Your task to perform on an android device: toggle pop-ups in chrome Image 0: 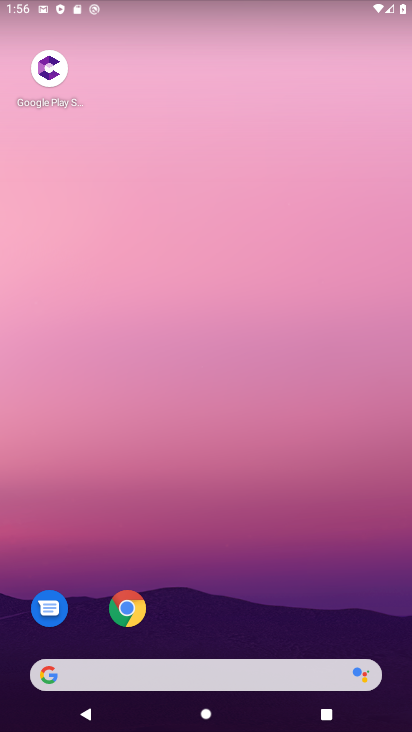
Step 0: click (113, 609)
Your task to perform on an android device: toggle pop-ups in chrome Image 1: 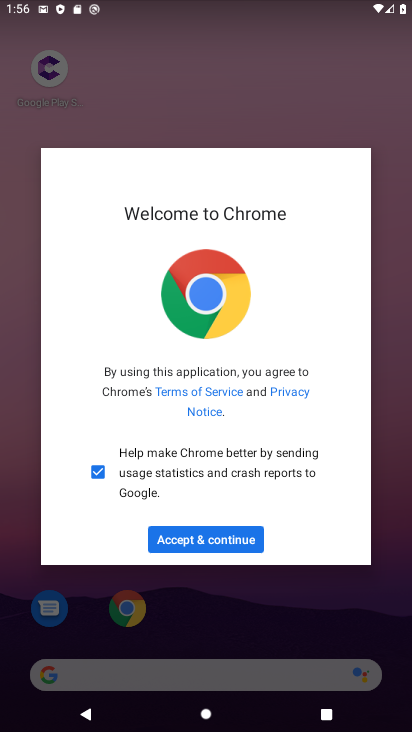
Step 1: click (209, 533)
Your task to perform on an android device: toggle pop-ups in chrome Image 2: 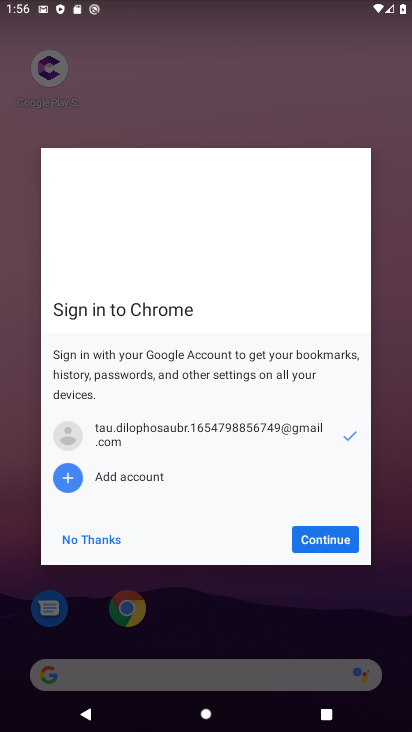
Step 2: click (86, 539)
Your task to perform on an android device: toggle pop-ups in chrome Image 3: 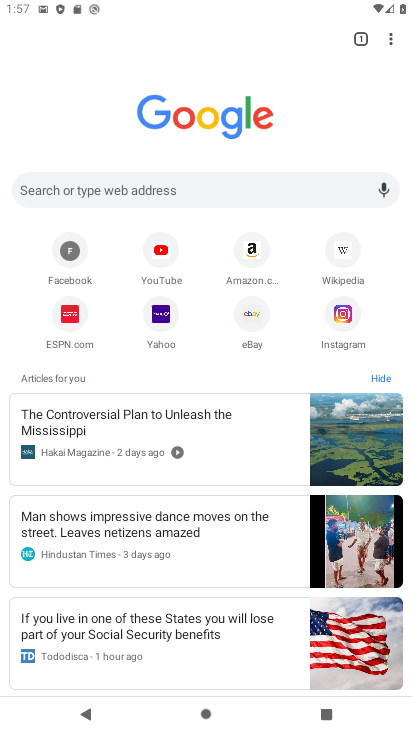
Step 3: click (395, 46)
Your task to perform on an android device: toggle pop-ups in chrome Image 4: 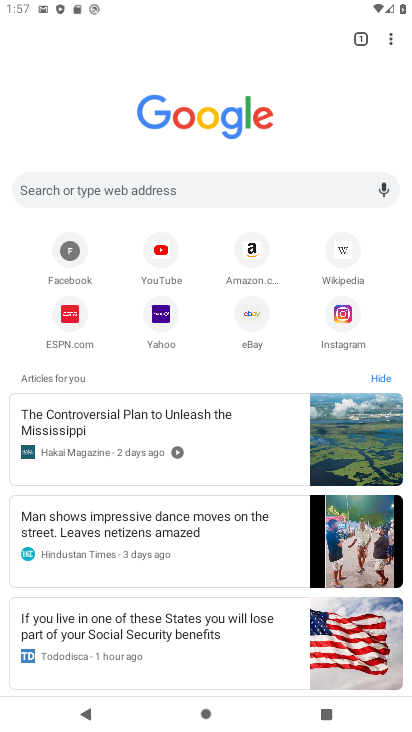
Step 4: click (390, 41)
Your task to perform on an android device: toggle pop-ups in chrome Image 5: 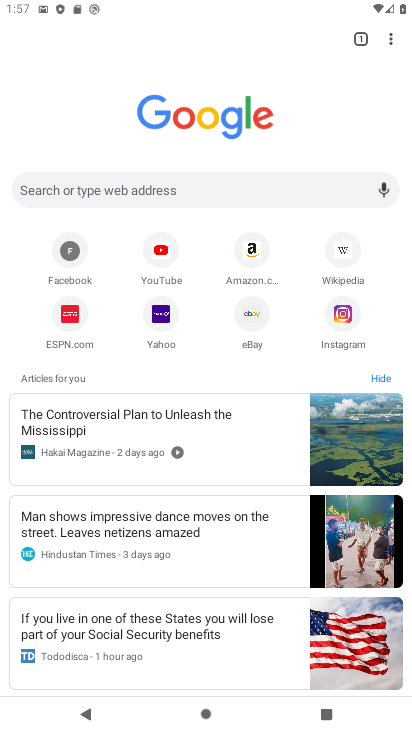
Step 5: click (390, 41)
Your task to perform on an android device: toggle pop-ups in chrome Image 6: 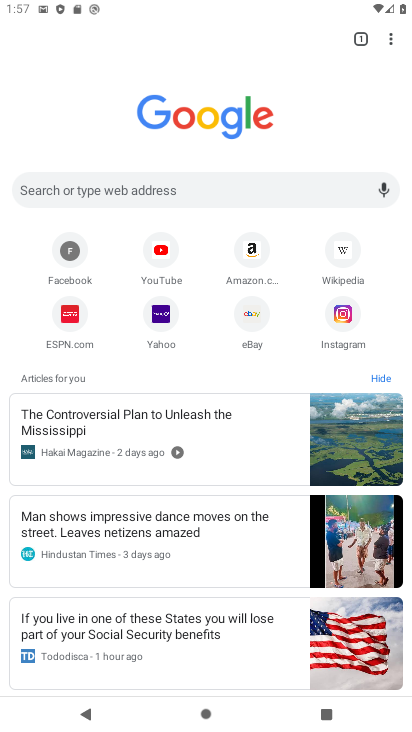
Step 6: click (390, 41)
Your task to perform on an android device: toggle pop-ups in chrome Image 7: 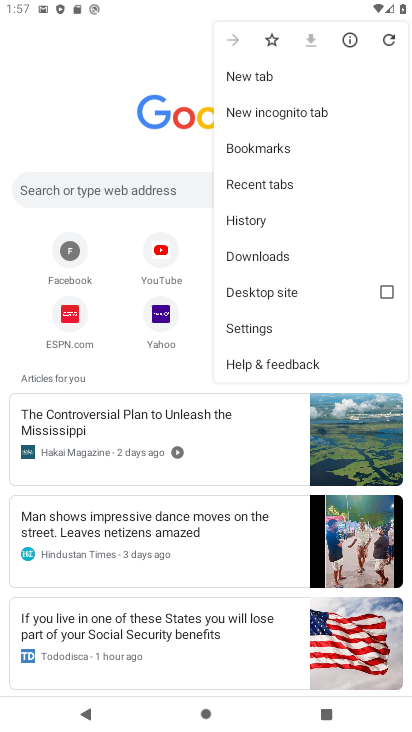
Step 7: click (238, 331)
Your task to perform on an android device: toggle pop-ups in chrome Image 8: 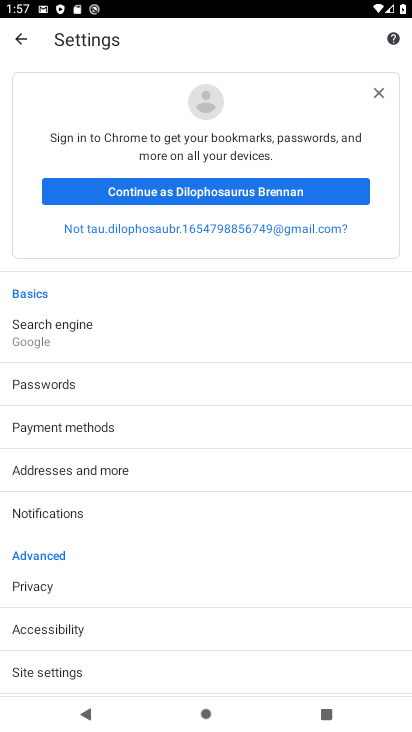
Step 8: click (134, 668)
Your task to perform on an android device: toggle pop-ups in chrome Image 9: 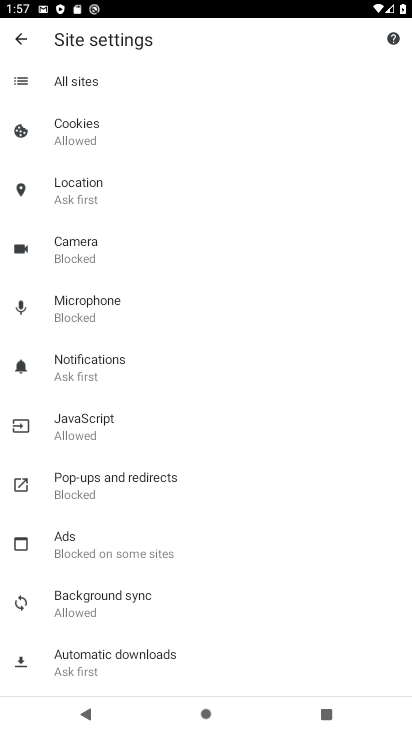
Step 9: click (143, 489)
Your task to perform on an android device: toggle pop-ups in chrome Image 10: 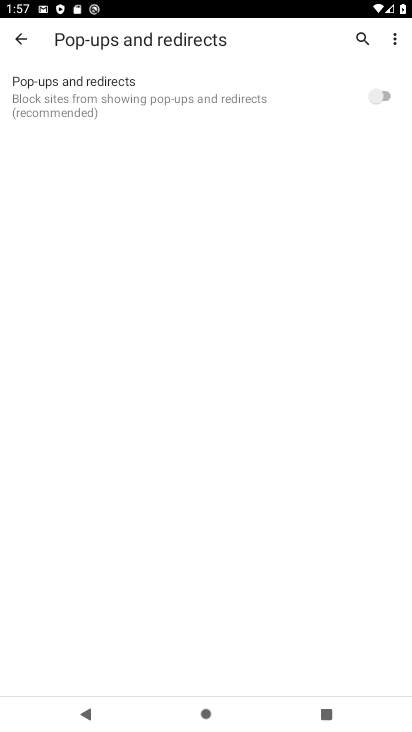
Step 10: click (373, 97)
Your task to perform on an android device: toggle pop-ups in chrome Image 11: 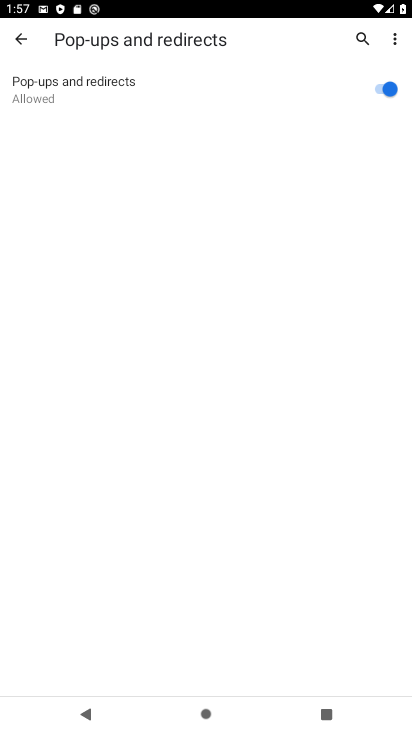
Step 11: task complete